Your task to perform on an android device: Play the last video I watched on Youtube Image 0: 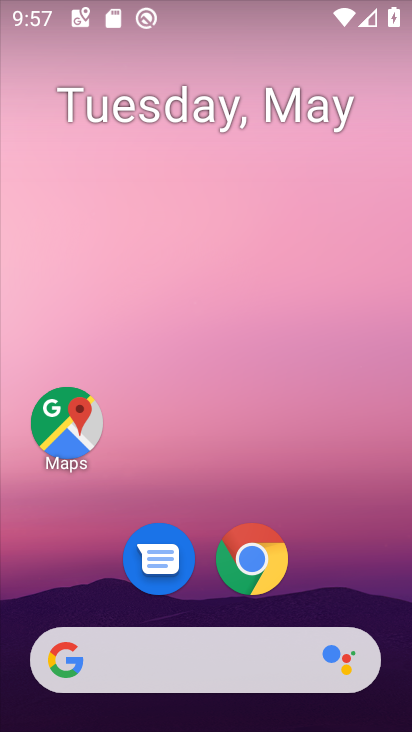
Step 0: drag from (397, 650) to (305, 113)
Your task to perform on an android device: Play the last video I watched on Youtube Image 1: 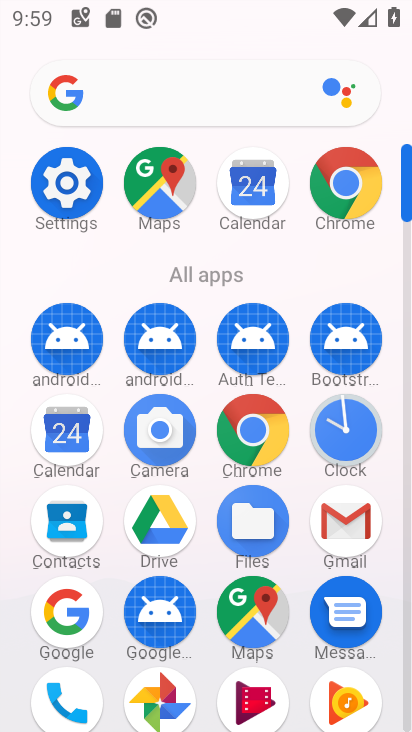
Step 1: drag from (267, 660) to (198, 65)
Your task to perform on an android device: Play the last video I watched on Youtube Image 2: 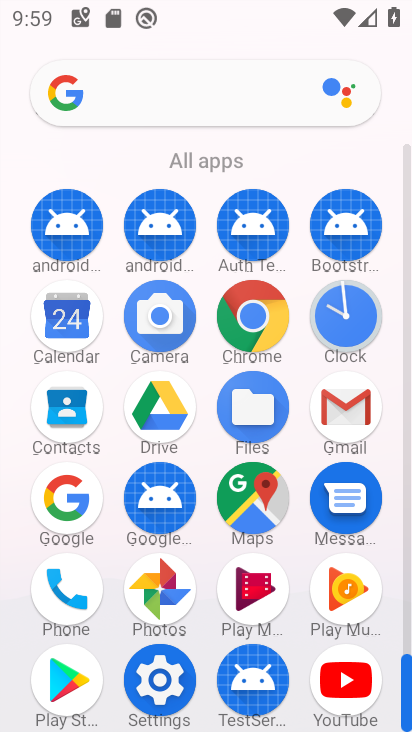
Step 2: drag from (119, 667) to (207, 136)
Your task to perform on an android device: Play the last video I watched on Youtube Image 3: 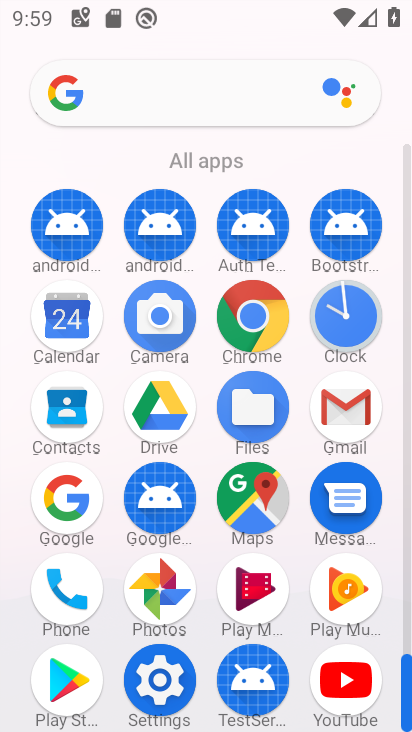
Step 3: click (336, 684)
Your task to perform on an android device: Play the last video I watched on Youtube Image 4: 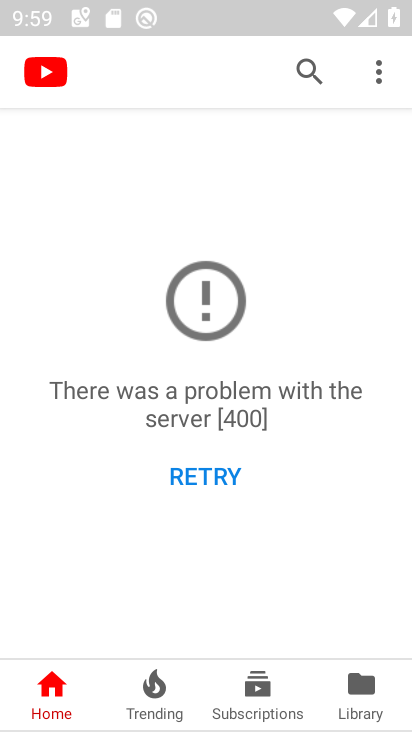
Step 4: task complete